Your task to perform on an android device: check android version Image 0: 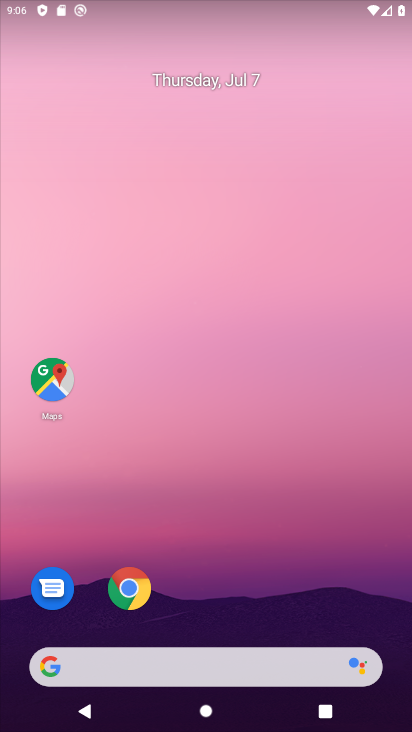
Step 0: drag from (255, 12) to (210, 628)
Your task to perform on an android device: check android version Image 1: 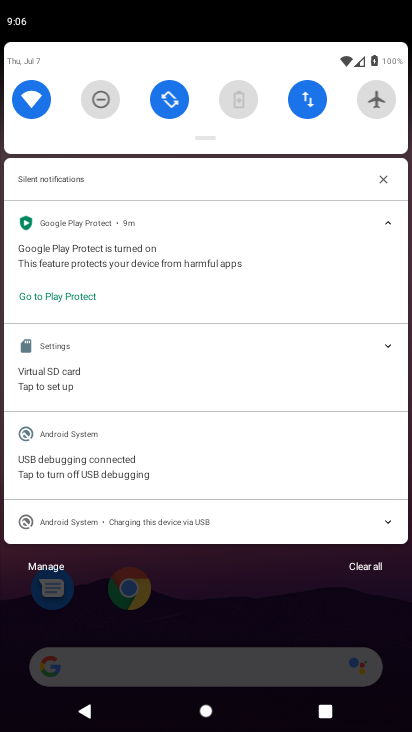
Step 1: drag from (184, 65) to (276, 626)
Your task to perform on an android device: check android version Image 2: 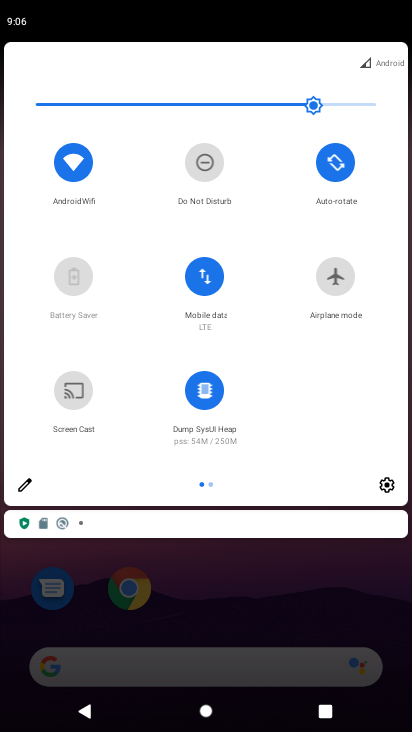
Step 2: click (389, 487)
Your task to perform on an android device: check android version Image 3: 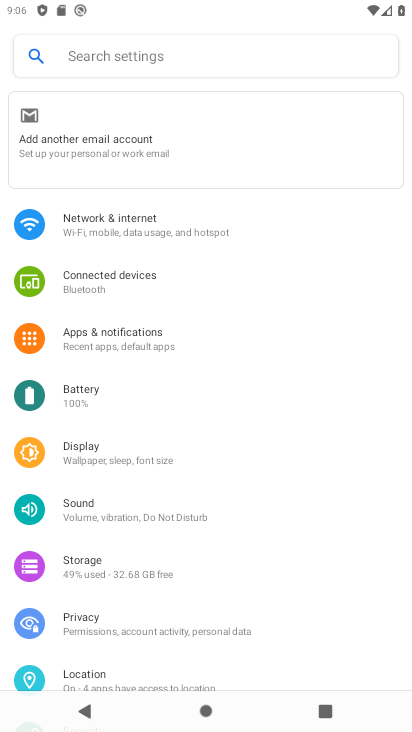
Step 3: drag from (95, 649) to (230, 18)
Your task to perform on an android device: check android version Image 4: 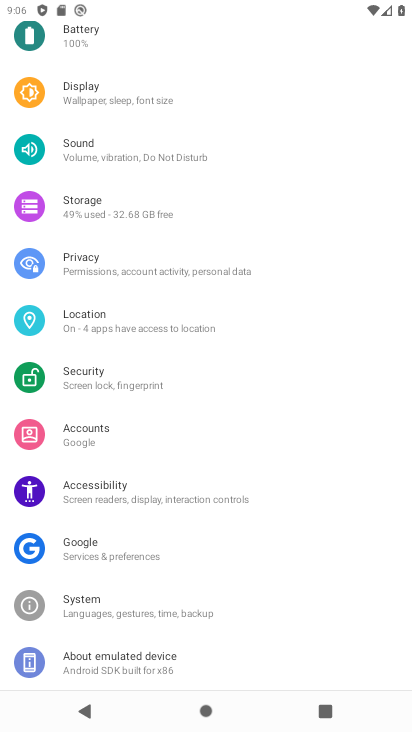
Step 4: drag from (78, 647) to (189, 209)
Your task to perform on an android device: check android version Image 5: 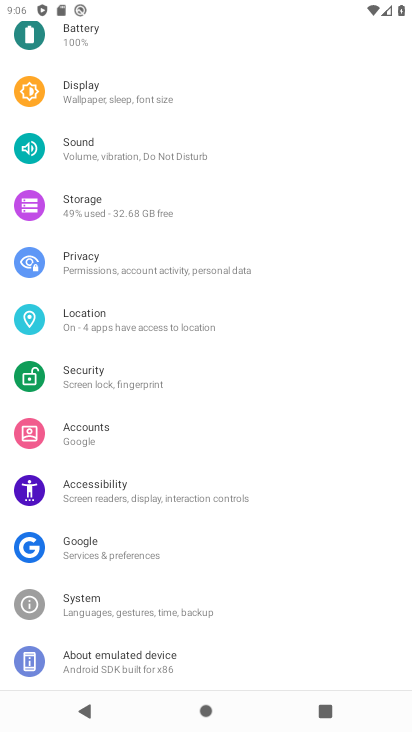
Step 5: click (150, 661)
Your task to perform on an android device: check android version Image 6: 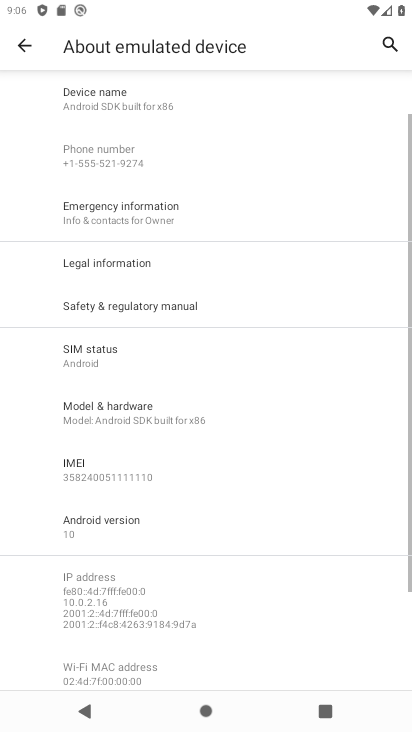
Step 6: click (120, 525)
Your task to perform on an android device: check android version Image 7: 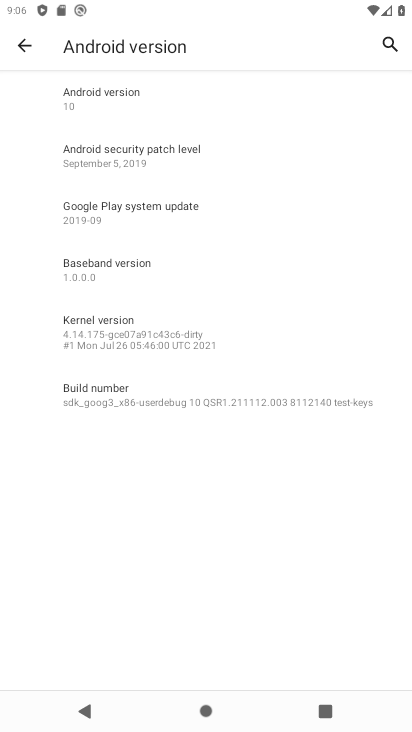
Step 7: task complete